Your task to perform on an android device: Go to wifi settings Image 0: 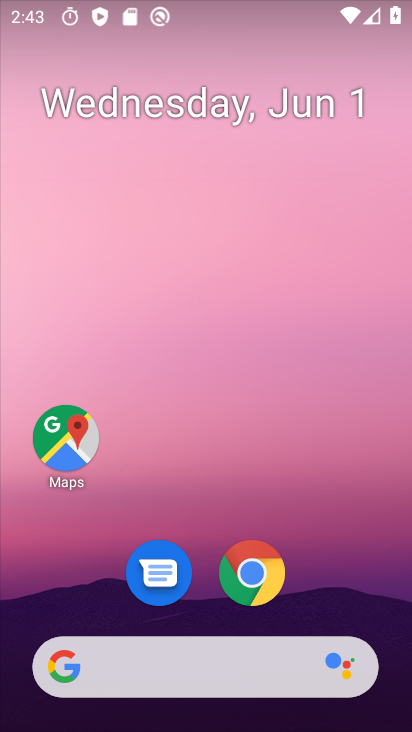
Step 0: drag from (212, 615) to (236, 141)
Your task to perform on an android device: Go to wifi settings Image 1: 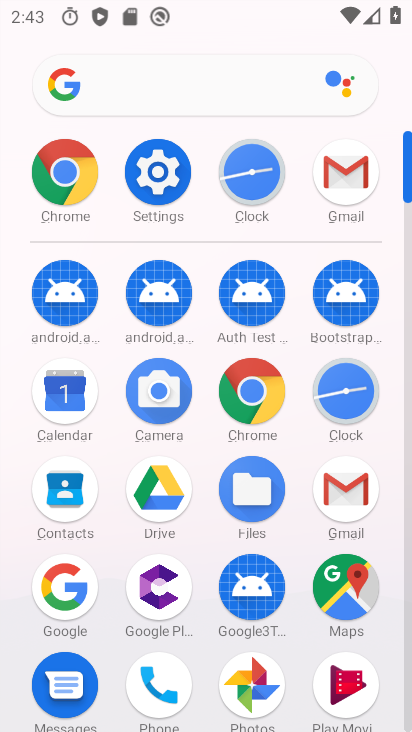
Step 1: click (145, 188)
Your task to perform on an android device: Go to wifi settings Image 2: 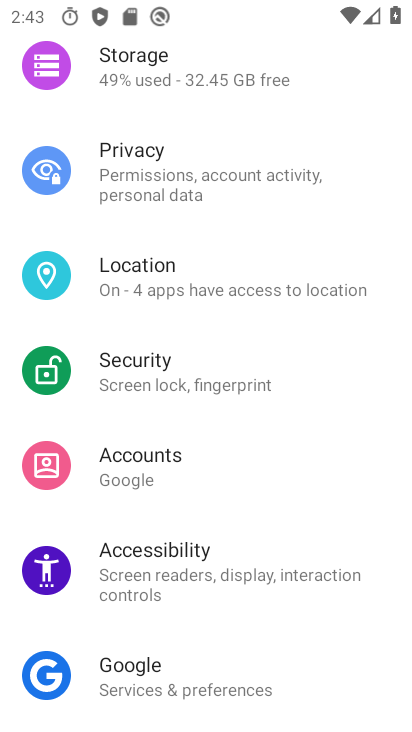
Step 2: drag from (223, 133) to (271, 557)
Your task to perform on an android device: Go to wifi settings Image 3: 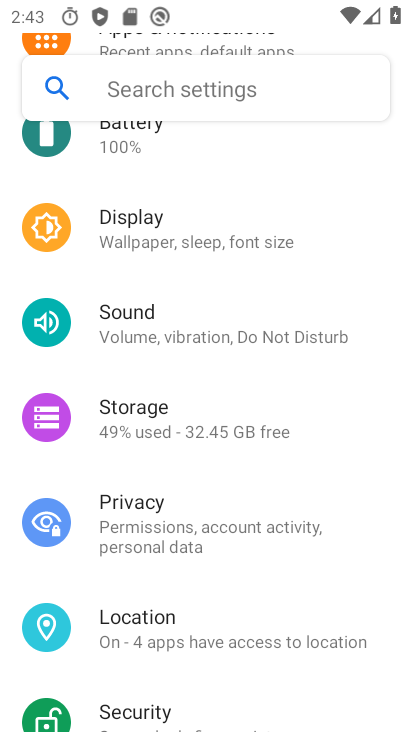
Step 3: drag from (192, 201) to (195, 522)
Your task to perform on an android device: Go to wifi settings Image 4: 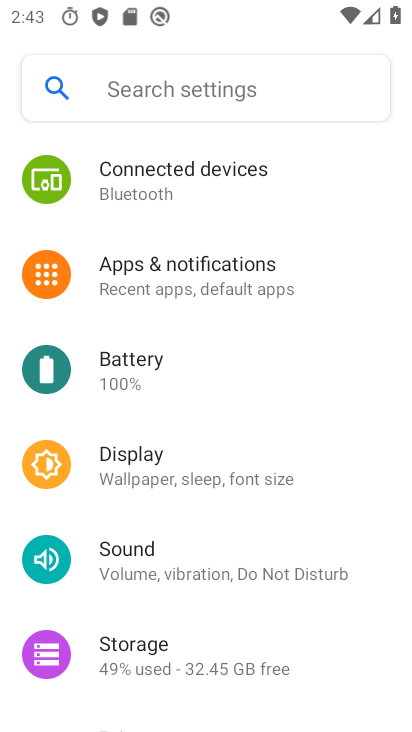
Step 4: drag from (173, 262) to (178, 474)
Your task to perform on an android device: Go to wifi settings Image 5: 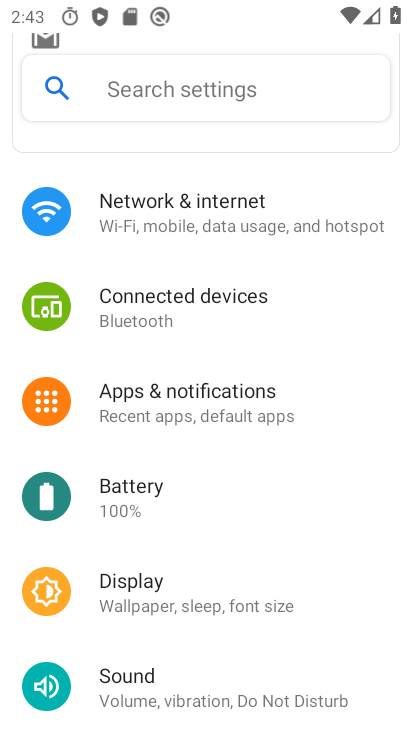
Step 5: click (165, 239)
Your task to perform on an android device: Go to wifi settings Image 6: 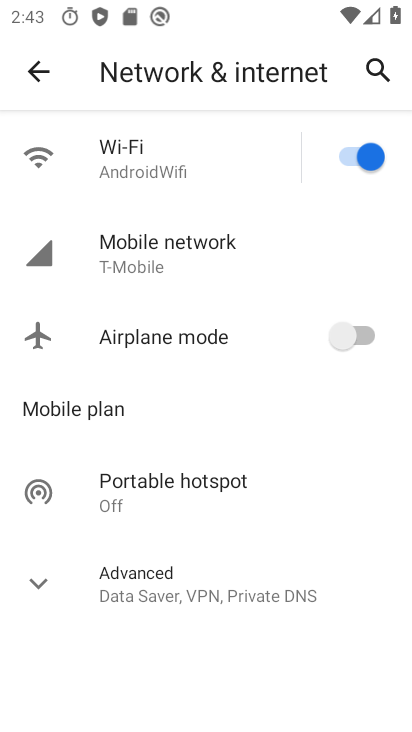
Step 6: click (165, 162)
Your task to perform on an android device: Go to wifi settings Image 7: 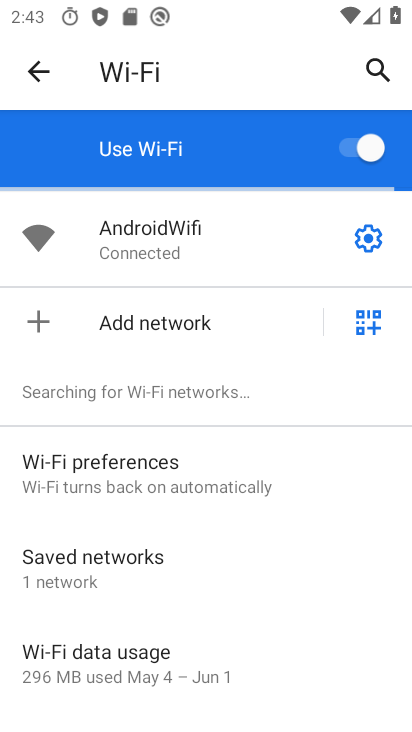
Step 7: task complete